Your task to perform on an android device: check out phone information Image 0: 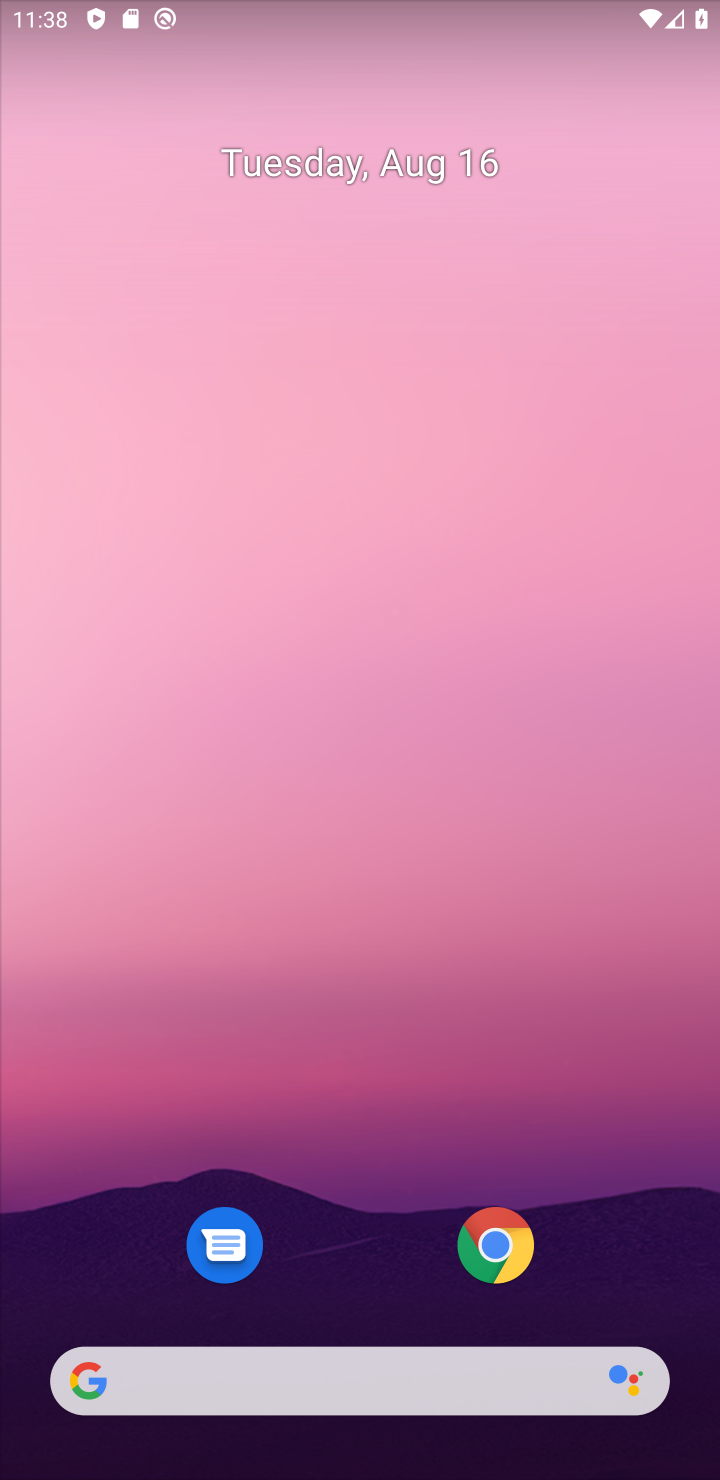
Step 0: drag from (367, 1286) to (306, 180)
Your task to perform on an android device: check out phone information Image 1: 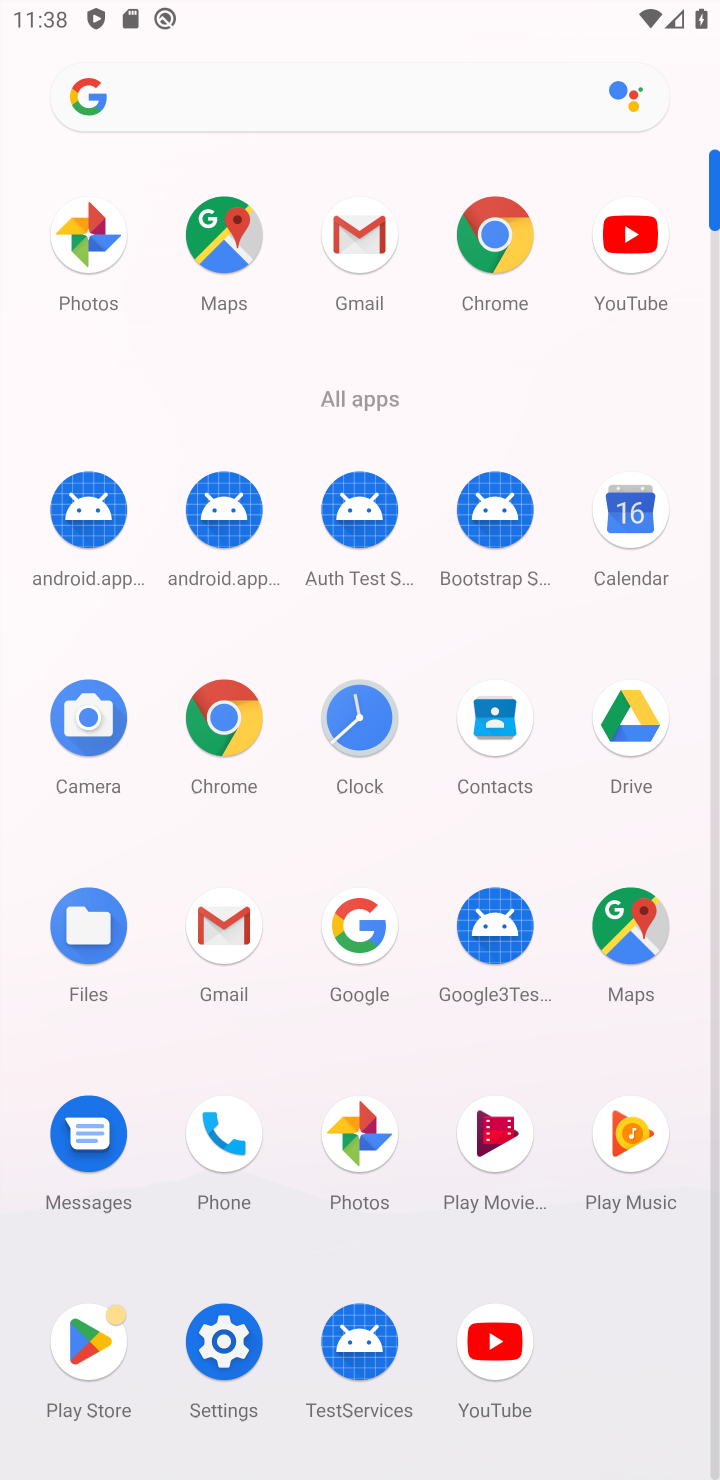
Step 1: click (199, 1331)
Your task to perform on an android device: check out phone information Image 2: 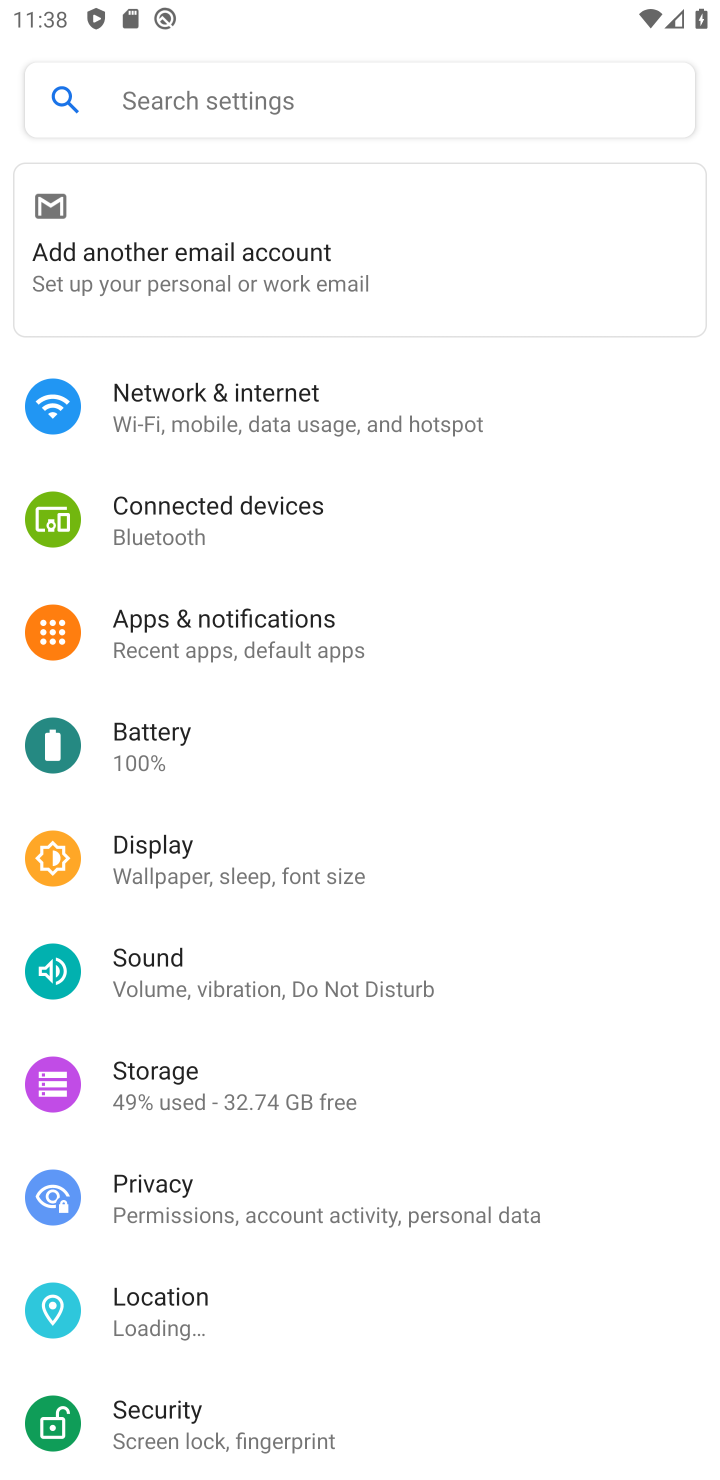
Step 2: drag from (199, 1331) to (0, 357)
Your task to perform on an android device: check out phone information Image 3: 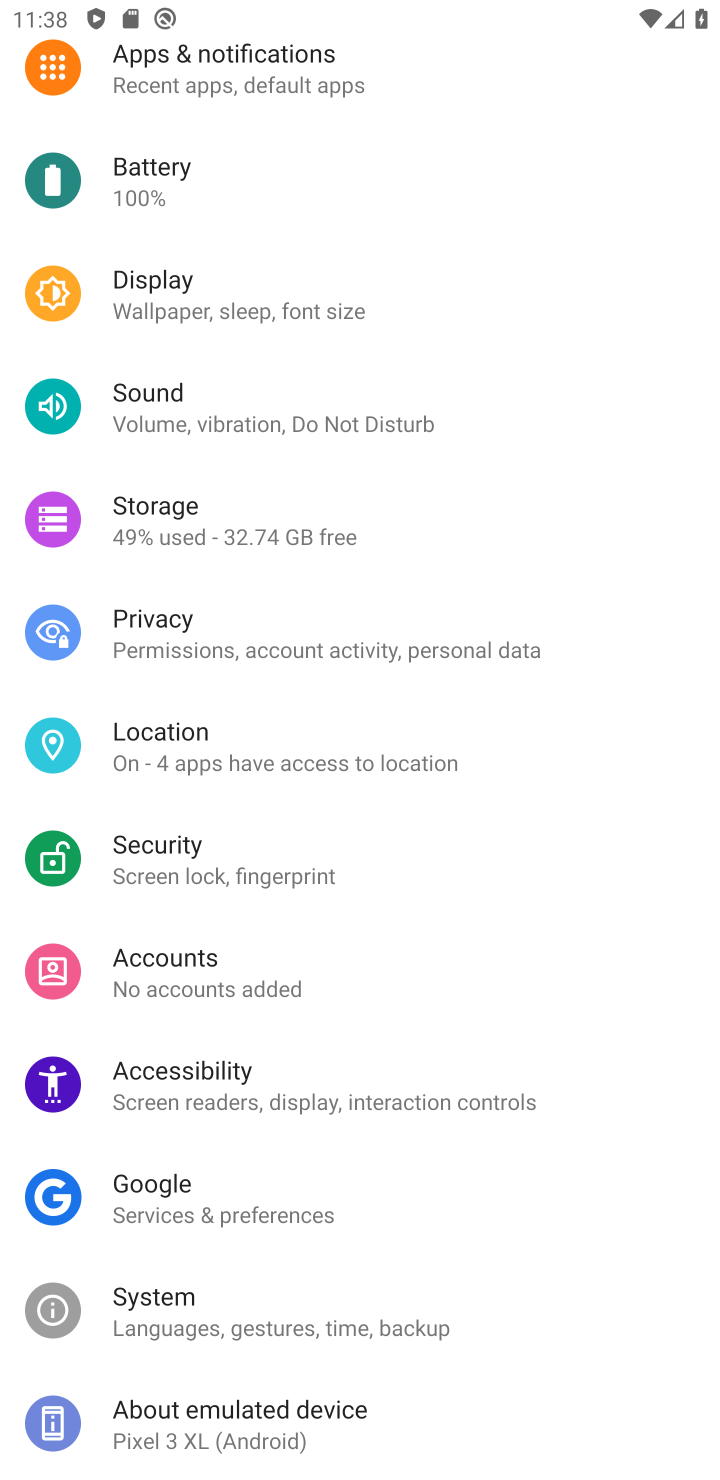
Step 3: drag from (303, 1334) to (146, 189)
Your task to perform on an android device: check out phone information Image 4: 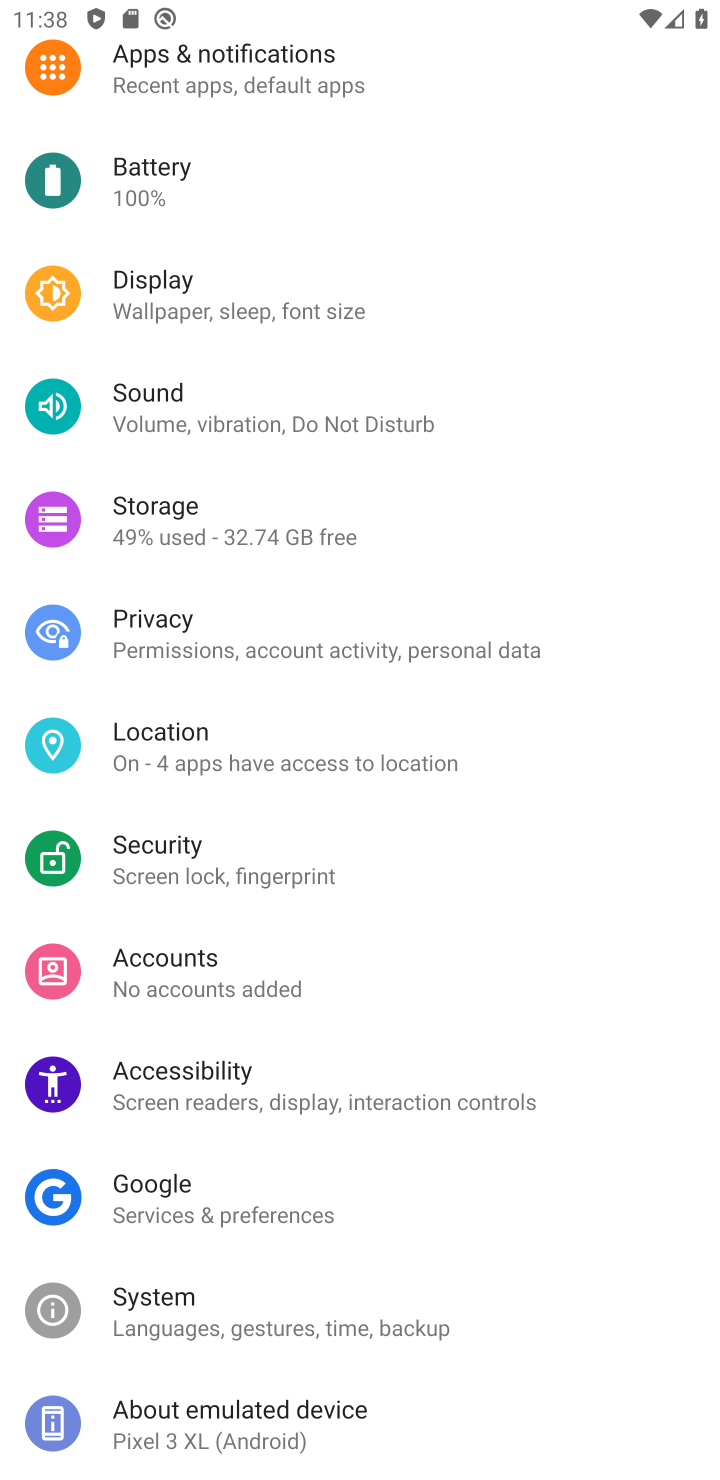
Step 4: click (328, 1444)
Your task to perform on an android device: check out phone information Image 5: 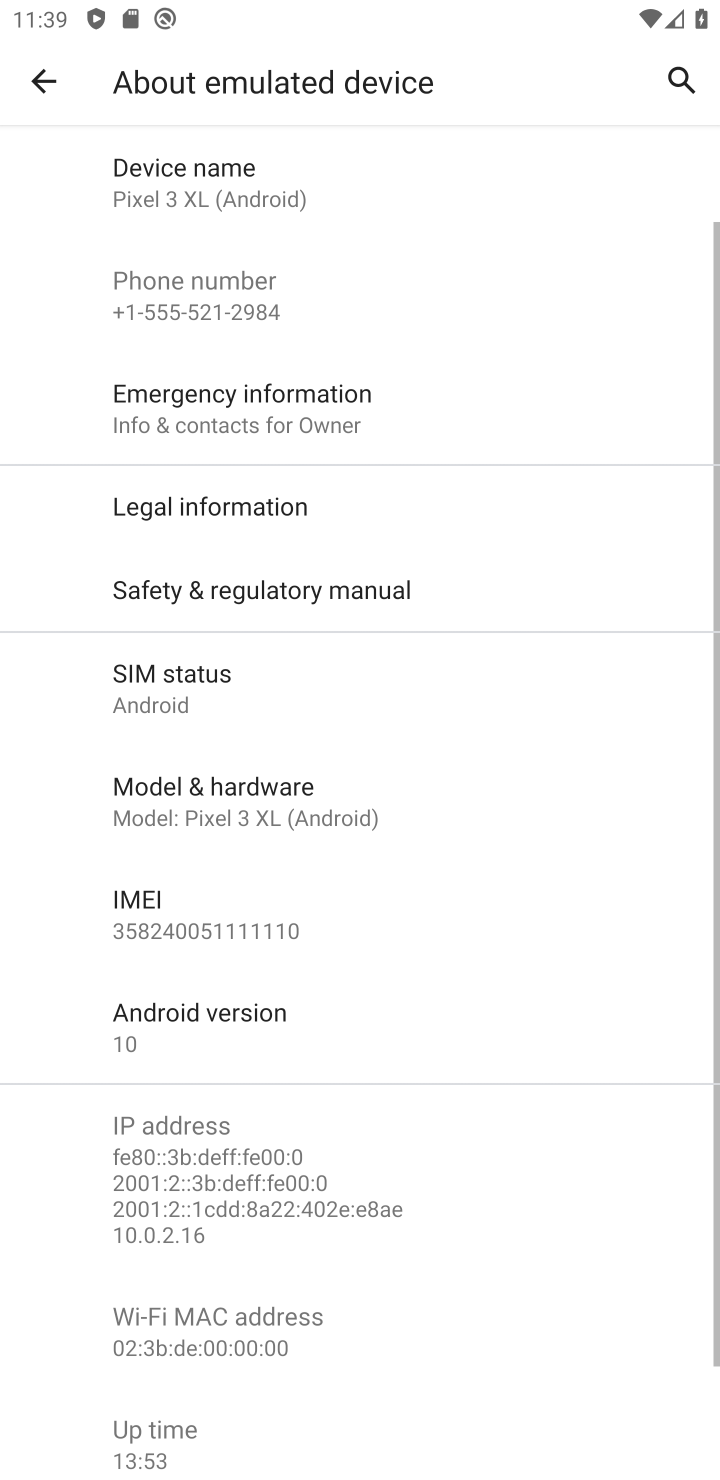
Step 5: task complete